Your task to perform on an android device: toggle data saver in the chrome app Image 0: 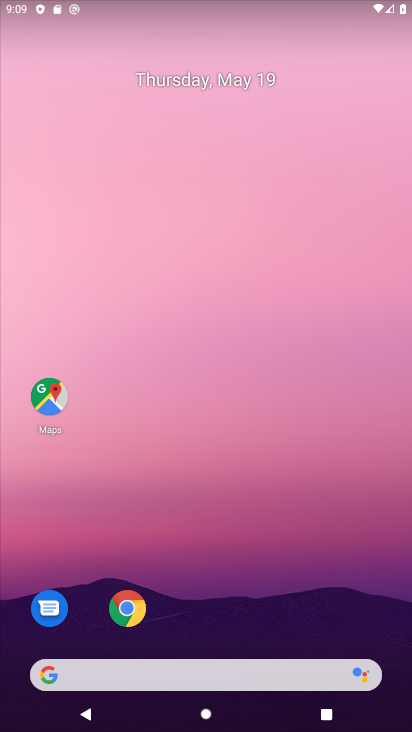
Step 0: click (123, 606)
Your task to perform on an android device: toggle data saver in the chrome app Image 1: 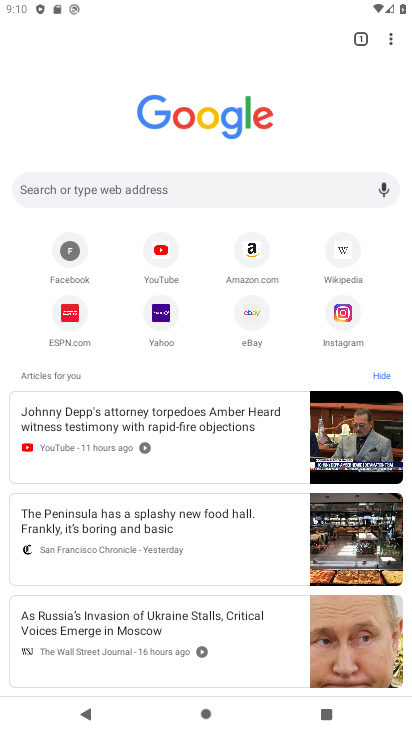
Step 1: click (387, 36)
Your task to perform on an android device: toggle data saver in the chrome app Image 2: 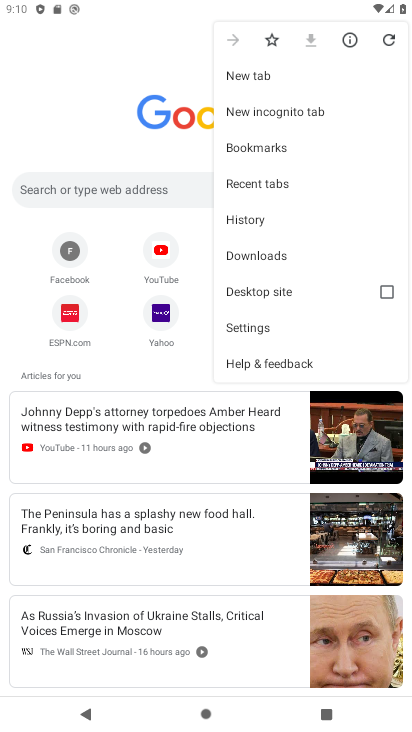
Step 2: click (264, 325)
Your task to perform on an android device: toggle data saver in the chrome app Image 3: 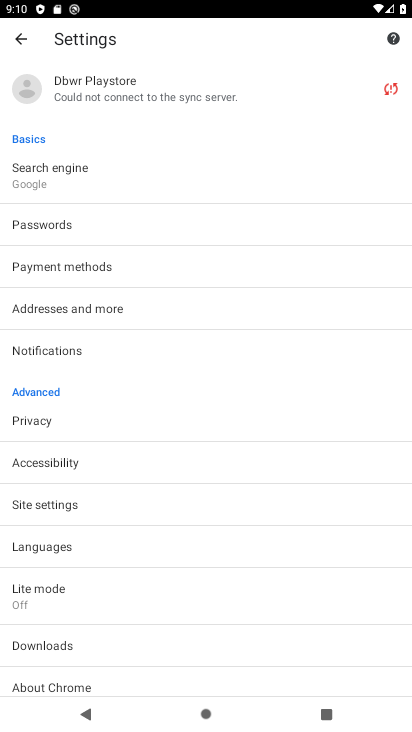
Step 3: click (72, 597)
Your task to perform on an android device: toggle data saver in the chrome app Image 4: 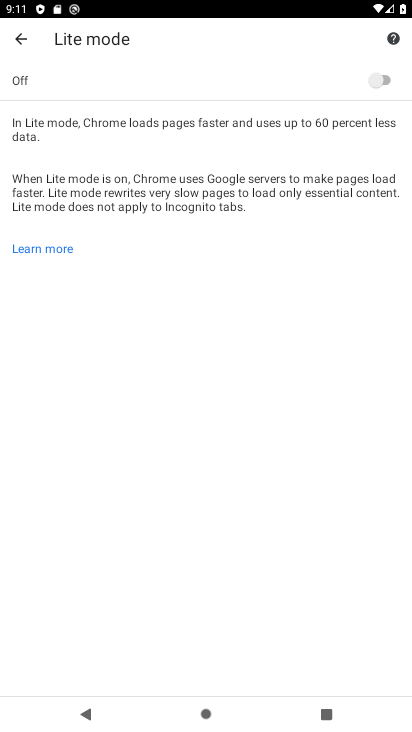
Step 4: click (378, 88)
Your task to perform on an android device: toggle data saver in the chrome app Image 5: 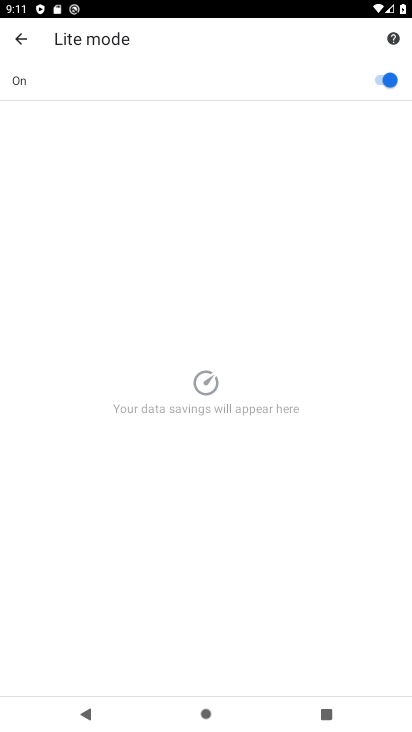
Step 5: task complete